Your task to perform on an android device: change the clock display to analog Image 0: 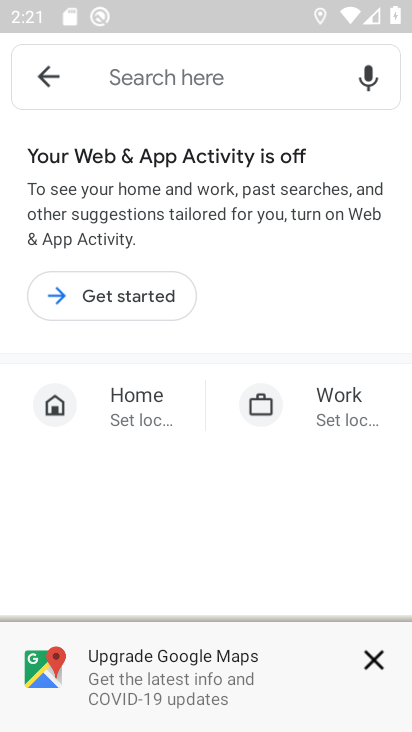
Step 0: click (210, 289)
Your task to perform on an android device: change the clock display to analog Image 1: 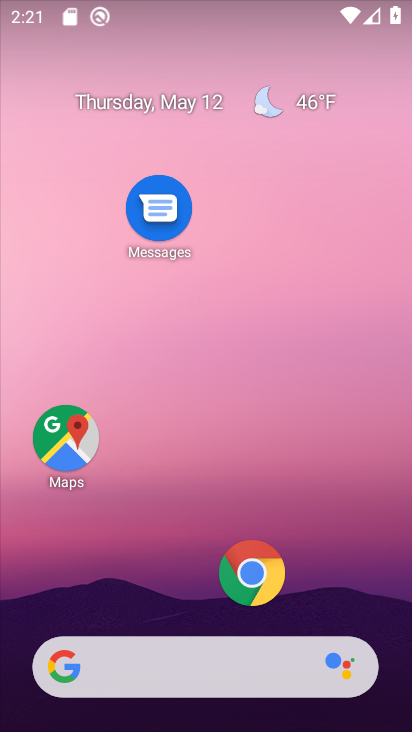
Step 1: drag from (195, 614) to (262, 54)
Your task to perform on an android device: change the clock display to analog Image 2: 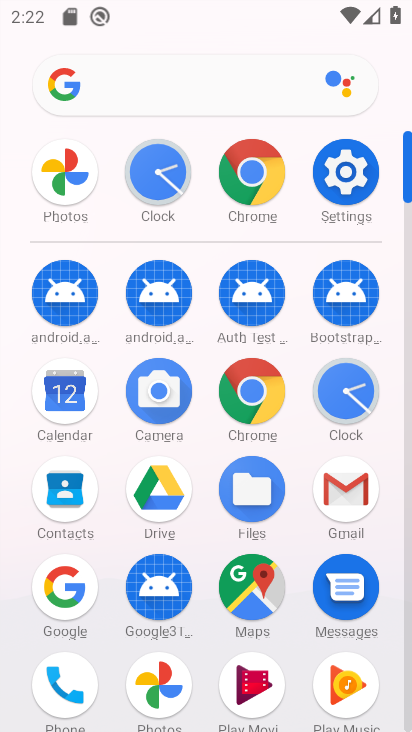
Step 2: click (342, 169)
Your task to perform on an android device: change the clock display to analog Image 3: 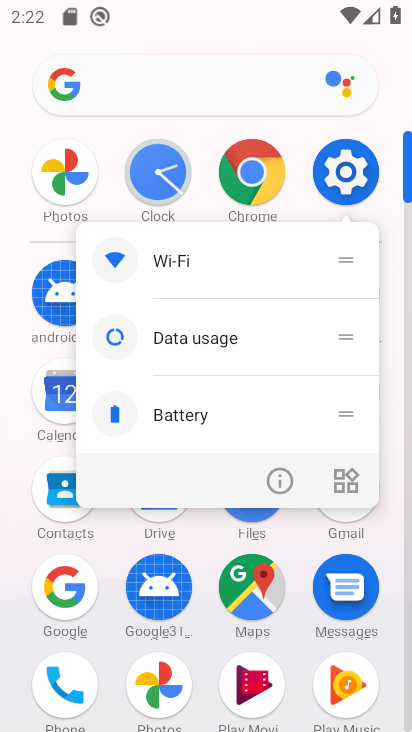
Step 3: click (294, 535)
Your task to perform on an android device: change the clock display to analog Image 4: 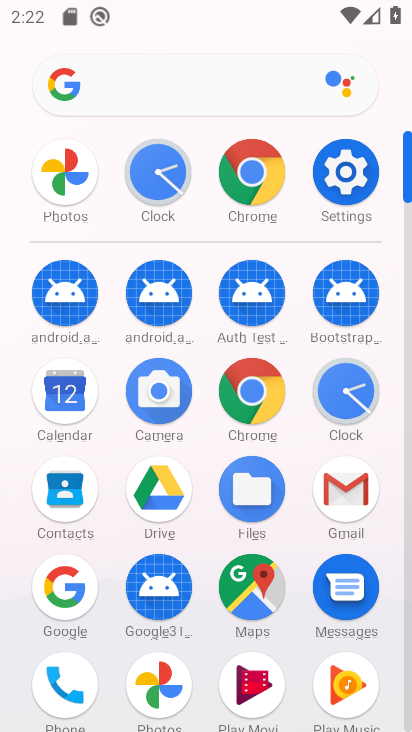
Step 4: click (348, 396)
Your task to perform on an android device: change the clock display to analog Image 5: 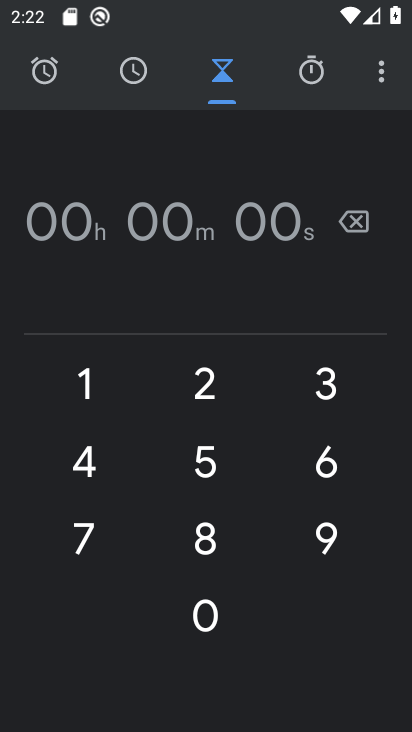
Step 5: click (383, 63)
Your task to perform on an android device: change the clock display to analog Image 6: 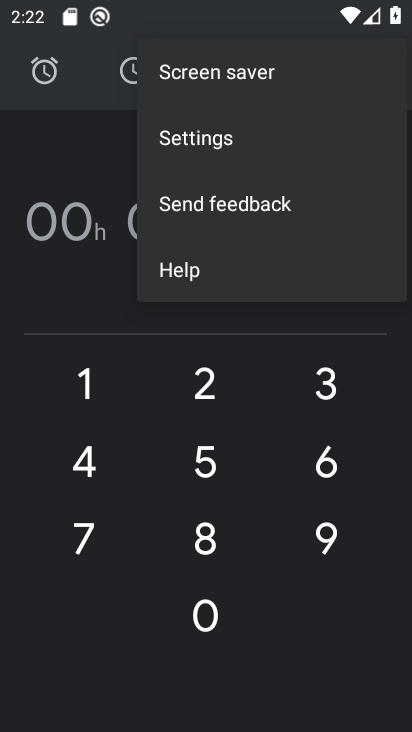
Step 6: click (289, 143)
Your task to perform on an android device: change the clock display to analog Image 7: 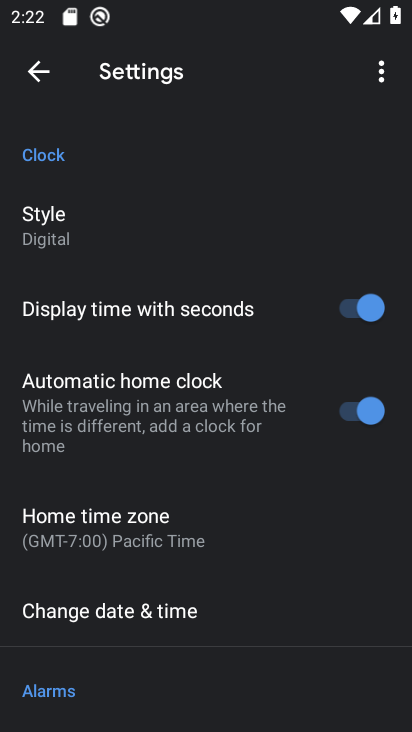
Step 7: click (50, 254)
Your task to perform on an android device: change the clock display to analog Image 8: 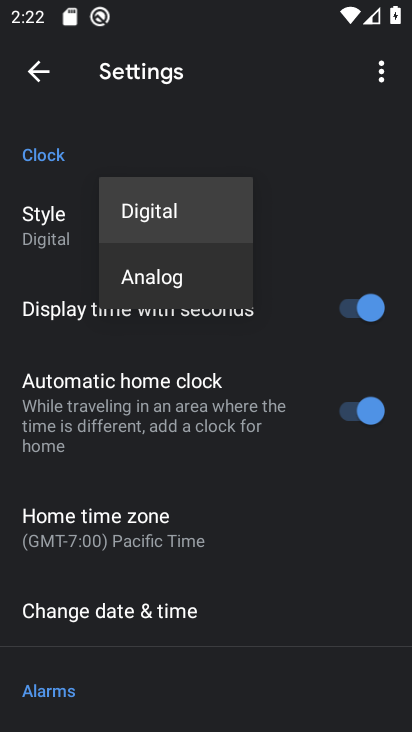
Step 8: click (204, 271)
Your task to perform on an android device: change the clock display to analog Image 9: 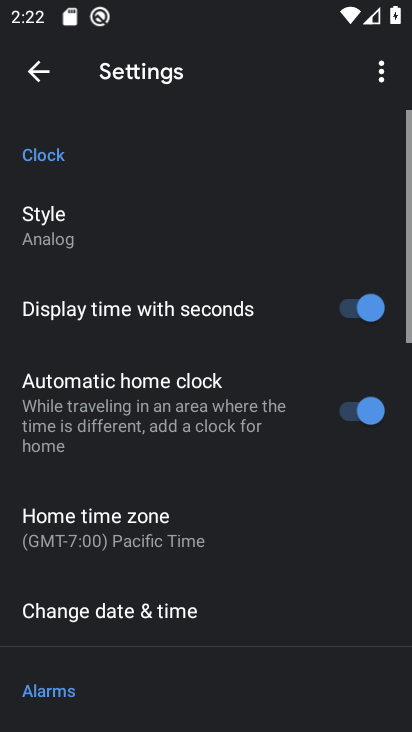
Step 9: task complete